Your task to perform on an android device: snooze an email in the gmail app Image 0: 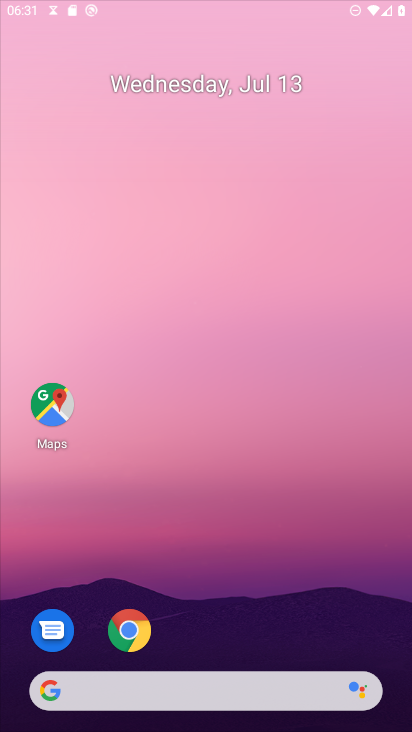
Step 0: drag from (256, 392) to (336, 20)
Your task to perform on an android device: snooze an email in the gmail app Image 1: 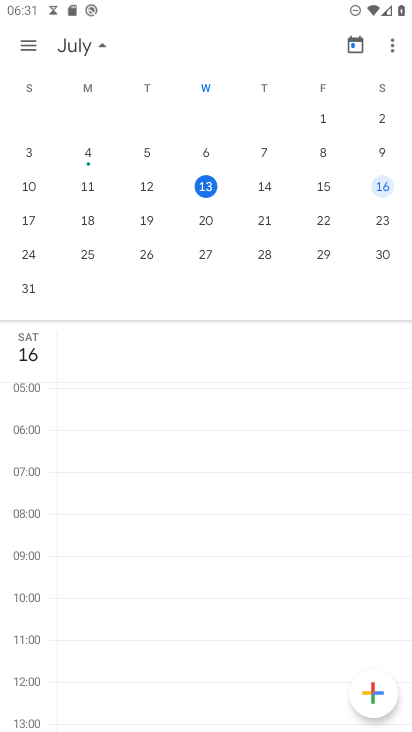
Step 1: press home button
Your task to perform on an android device: snooze an email in the gmail app Image 2: 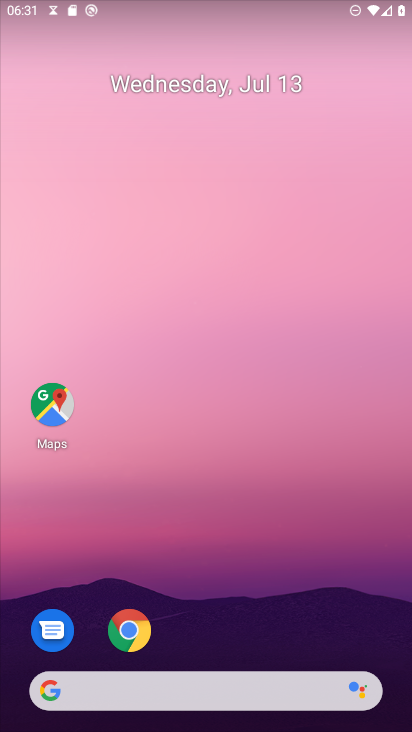
Step 2: drag from (283, 704) to (407, 324)
Your task to perform on an android device: snooze an email in the gmail app Image 3: 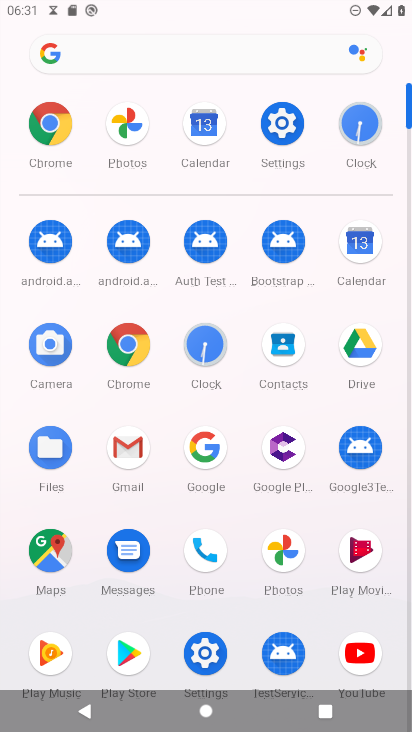
Step 3: click (129, 441)
Your task to perform on an android device: snooze an email in the gmail app Image 4: 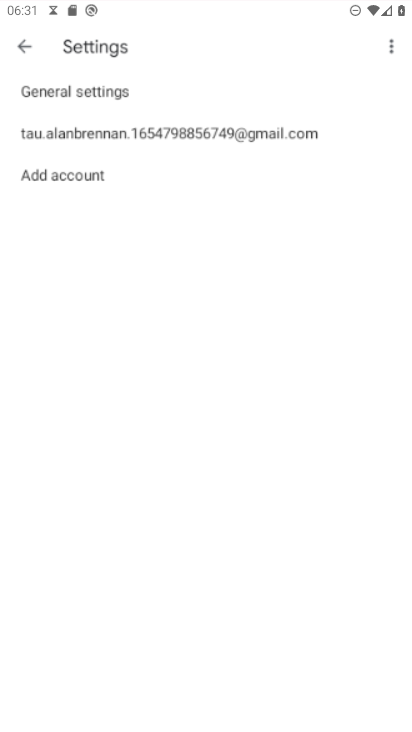
Step 4: click (129, 441)
Your task to perform on an android device: snooze an email in the gmail app Image 5: 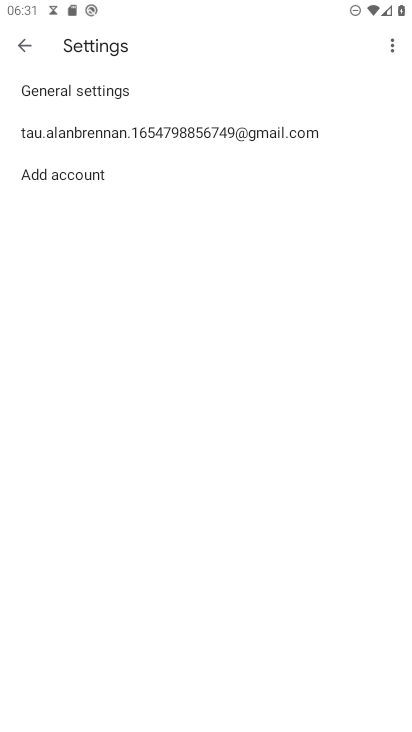
Step 5: press back button
Your task to perform on an android device: snooze an email in the gmail app Image 6: 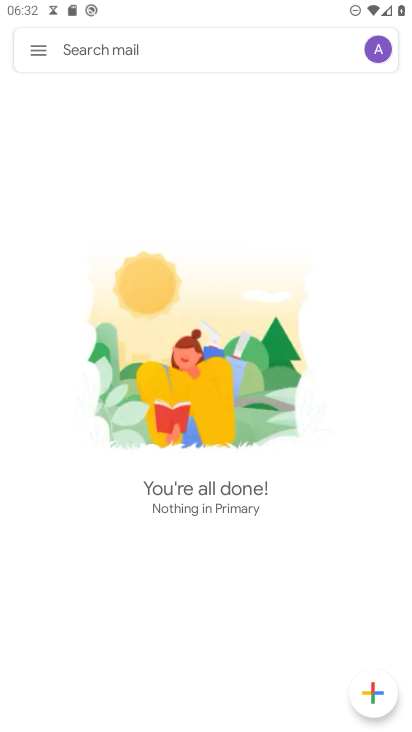
Step 6: click (32, 54)
Your task to perform on an android device: snooze an email in the gmail app Image 7: 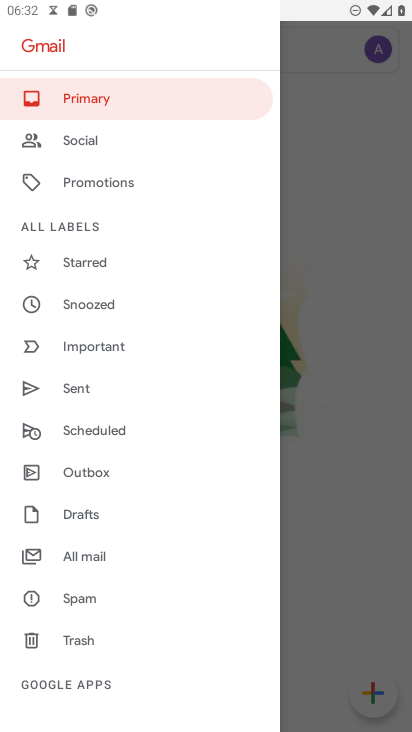
Step 7: click (89, 302)
Your task to perform on an android device: snooze an email in the gmail app Image 8: 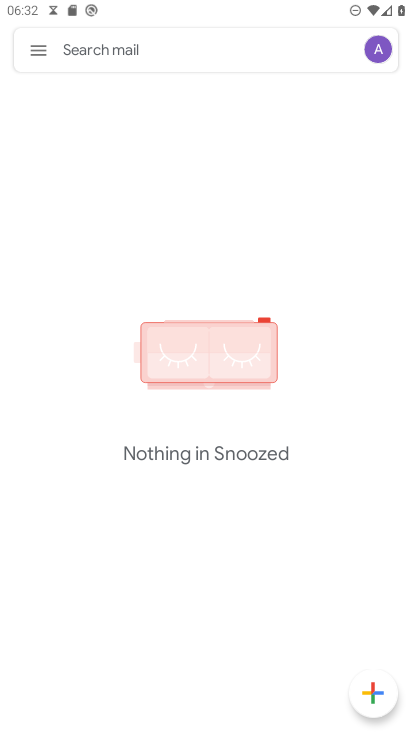
Step 8: task complete